Your task to perform on an android device: Open Wikipedia Image 0: 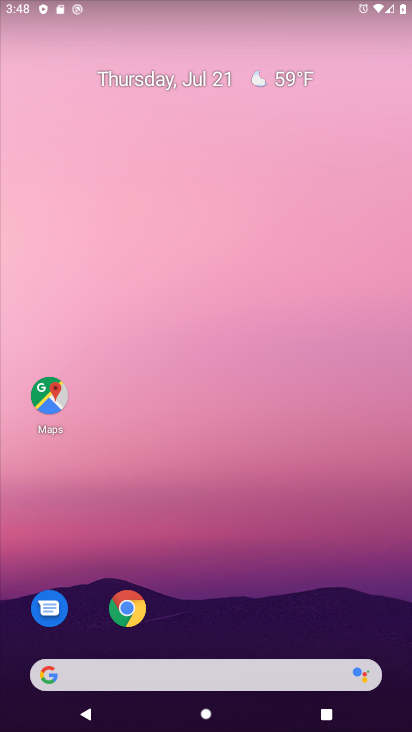
Step 0: drag from (168, 655) to (208, 75)
Your task to perform on an android device: Open Wikipedia Image 1: 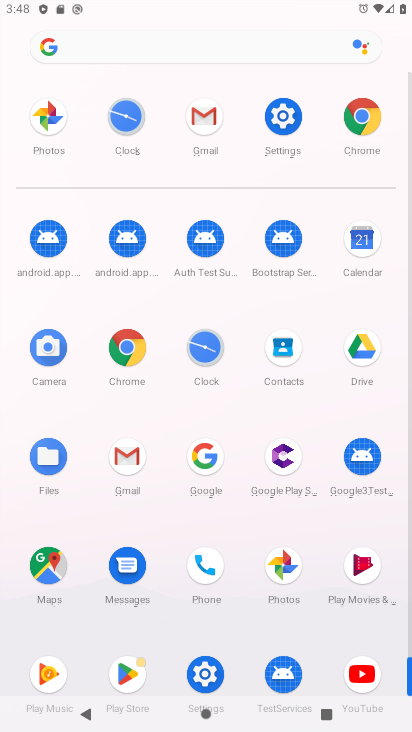
Step 1: click (118, 353)
Your task to perform on an android device: Open Wikipedia Image 2: 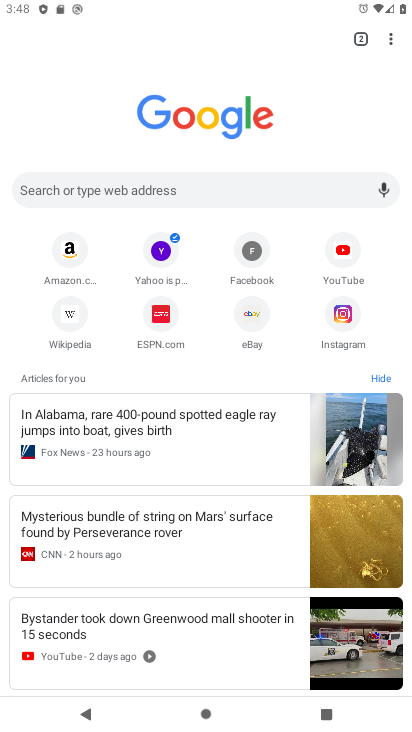
Step 2: drag from (390, 30) to (69, 150)
Your task to perform on an android device: Open Wikipedia Image 3: 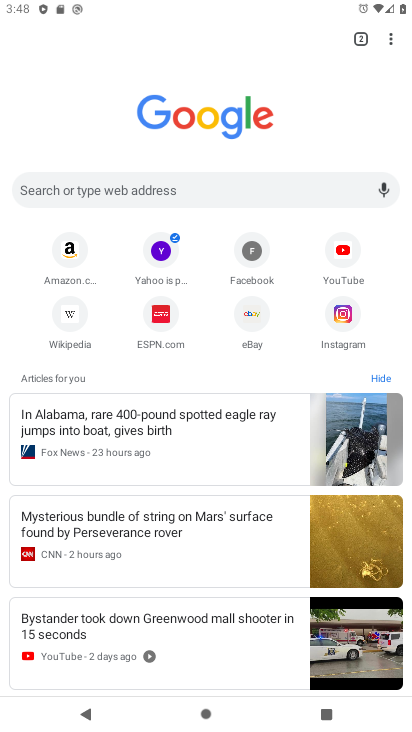
Step 3: click (69, 150)
Your task to perform on an android device: Open Wikipedia Image 4: 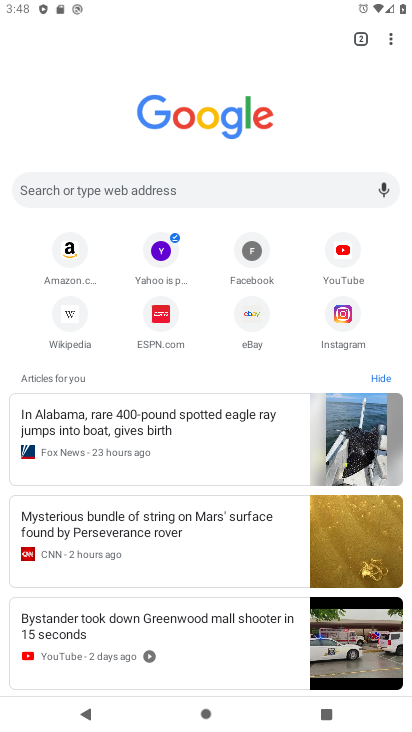
Step 4: click (71, 313)
Your task to perform on an android device: Open Wikipedia Image 5: 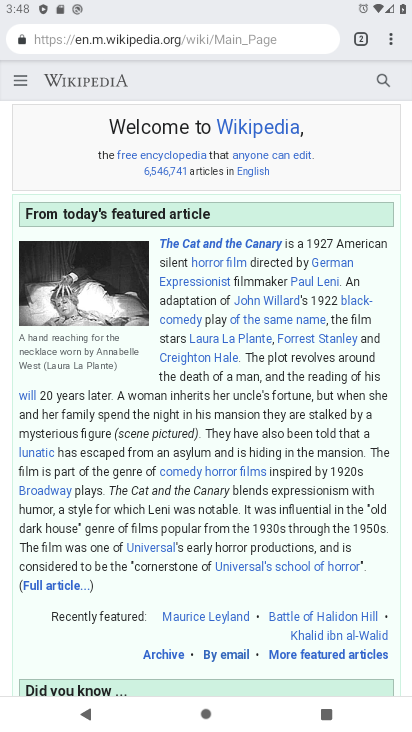
Step 5: task complete